Your task to perform on an android device: turn on location history Image 0: 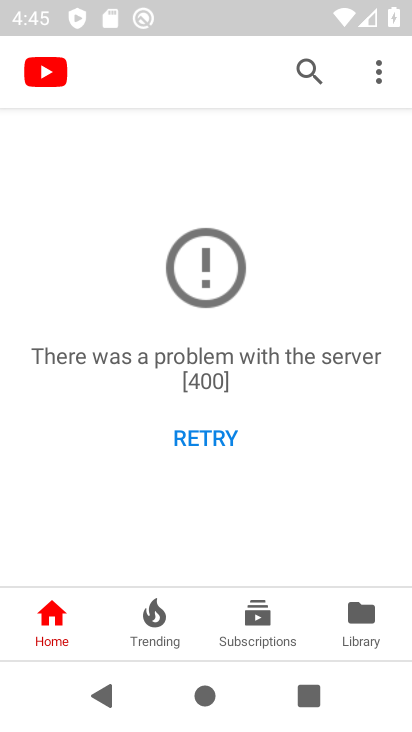
Step 0: press home button
Your task to perform on an android device: turn on location history Image 1: 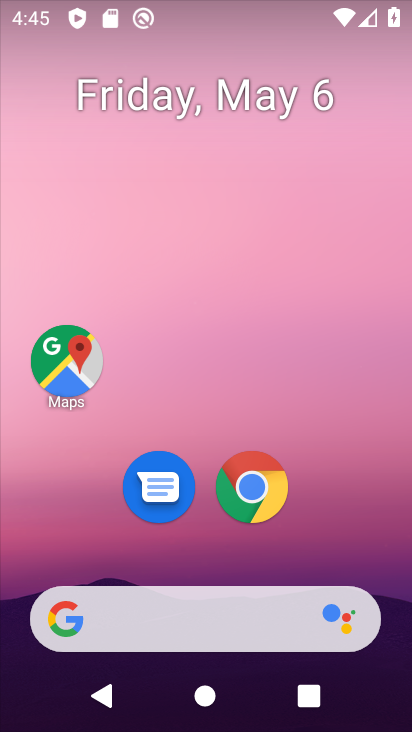
Step 1: drag from (195, 420) to (232, 0)
Your task to perform on an android device: turn on location history Image 2: 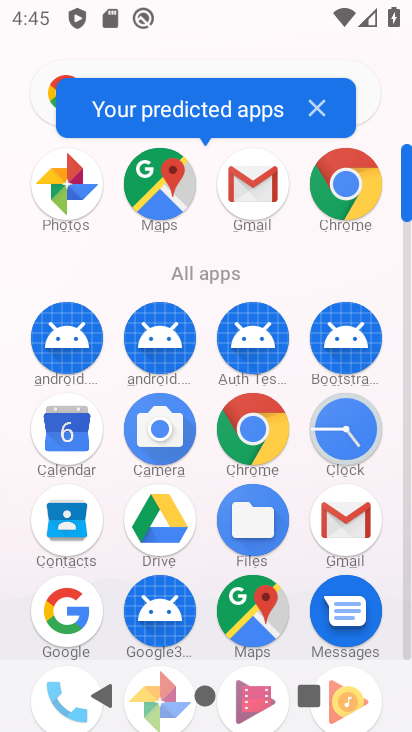
Step 2: drag from (103, 560) to (122, 232)
Your task to perform on an android device: turn on location history Image 3: 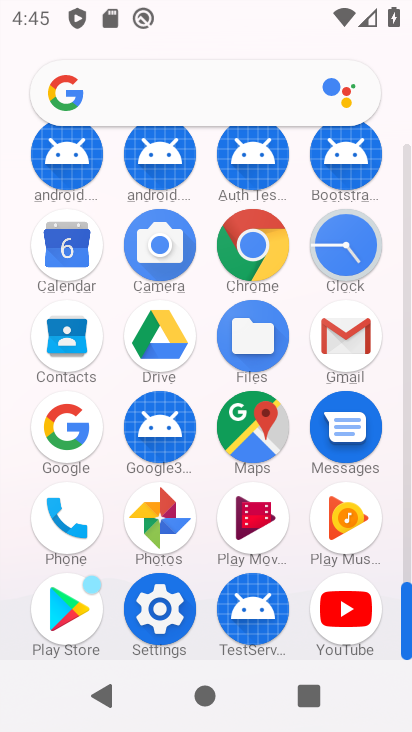
Step 3: click (158, 603)
Your task to perform on an android device: turn on location history Image 4: 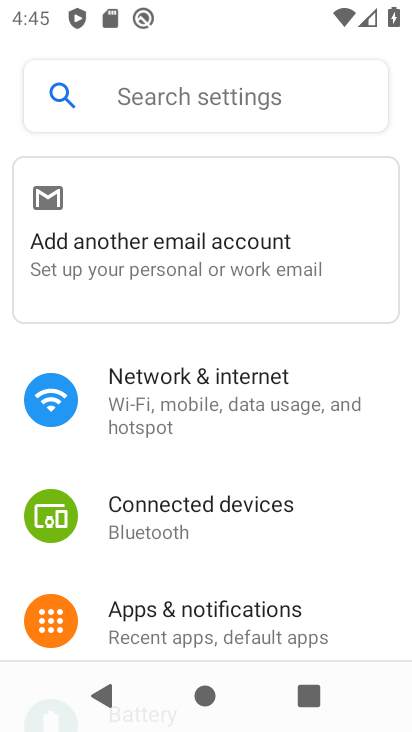
Step 4: drag from (214, 557) to (252, 435)
Your task to perform on an android device: turn on location history Image 5: 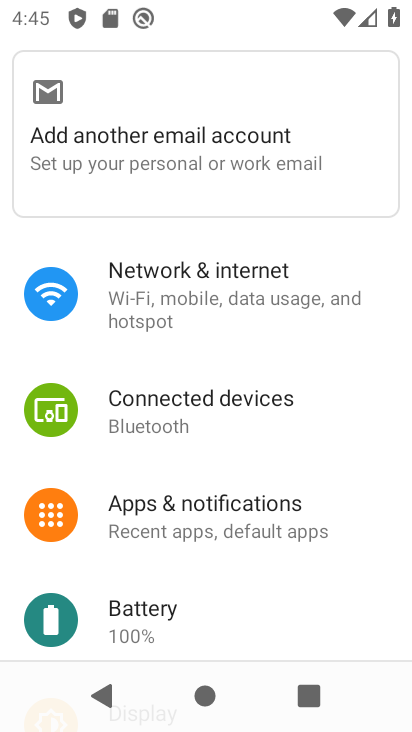
Step 5: drag from (206, 560) to (238, 437)
Your task to perform on an android device: turn on location history Image 6: 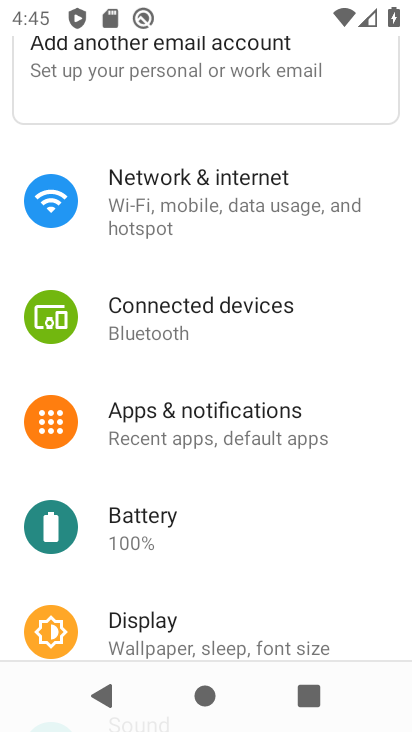
Step 6: drag from (213, 566) to (251, 420)
Your task to perform on an android device: turn on location history Image 7: 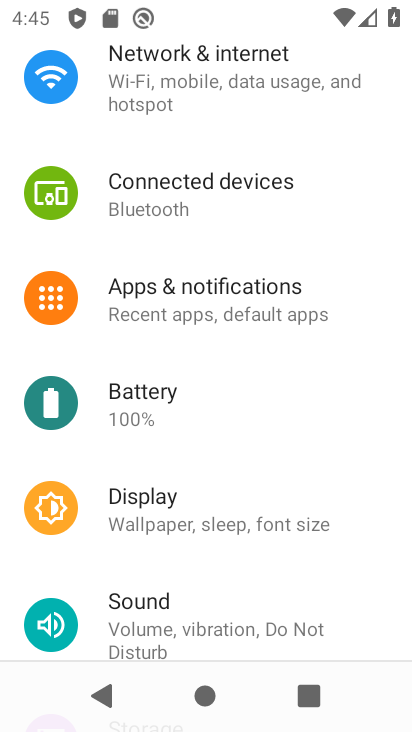
Step 7: drag from (207, 591) to (246, 421)
Your task to perform on an android device: turn on location history Image 8: 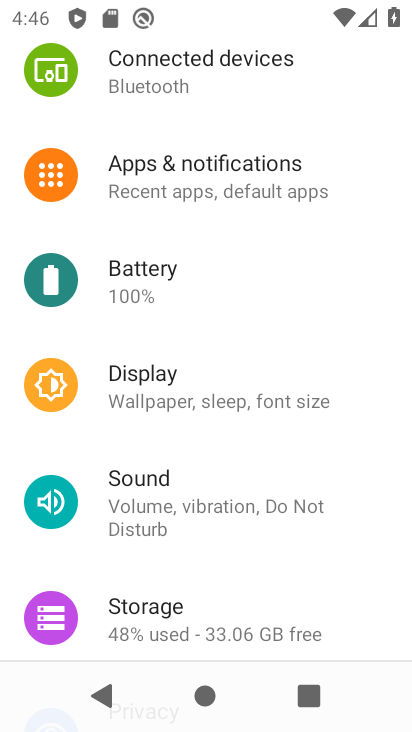
Step 8: drag from (206, 576) to (307, 438)
Your task to perform on an android device: turn on location history Image 9: 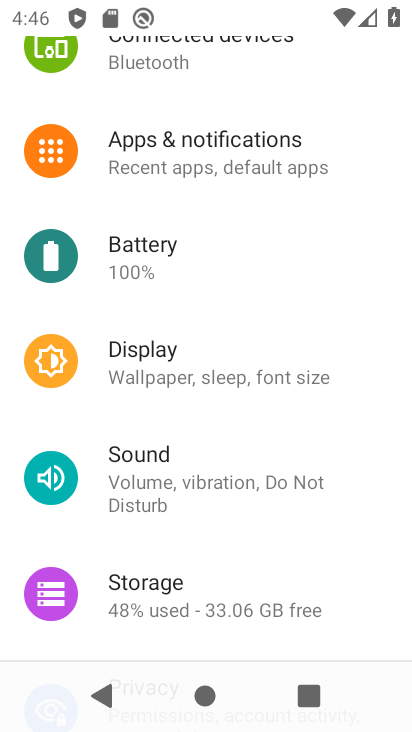
Step 9: drag from (195, 556) to (270, 384)
Your task to perform on an android device: turn on location history Image 10: 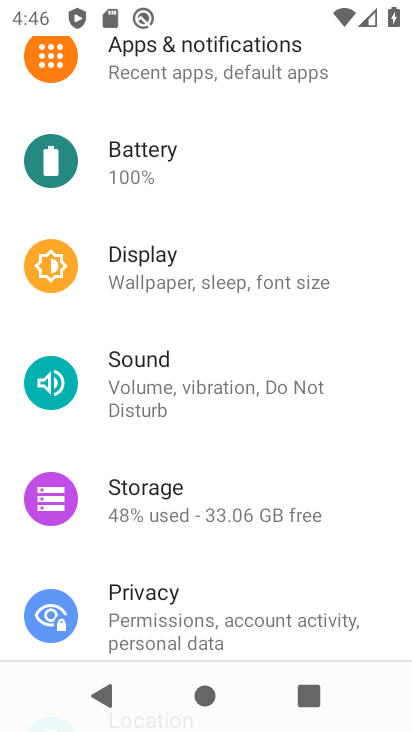
Step 10: drag from (218, 571) to (336, 349)
Your task to perform on an android device: turn on location history Image 11: 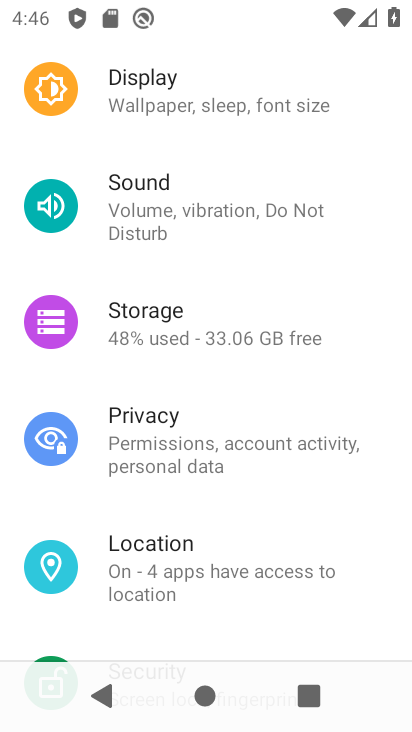
Step 11: click (174, 562)
Your task to perform on an android device: turn on location history Image 12: 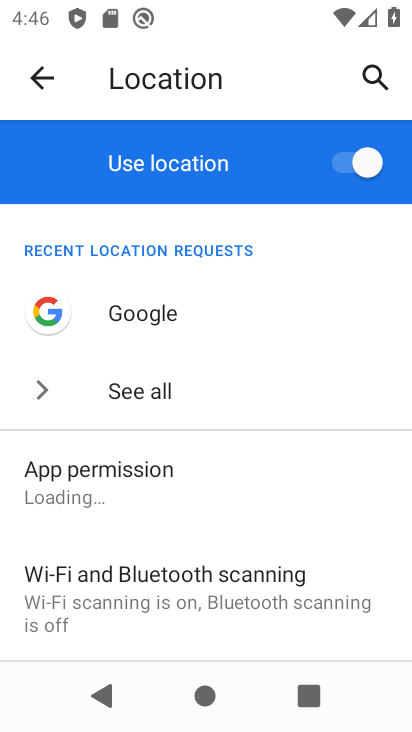
Step 12: drag from (172, 534) to (269, 324)
Your task to perform on an android device: turn on location history Image 13: 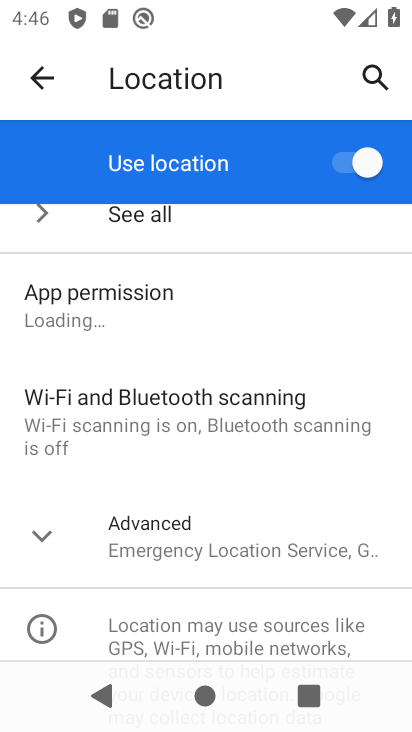
Step 13: click (222, 540)
Your task to perform on an android device: turn on location history Image 14: 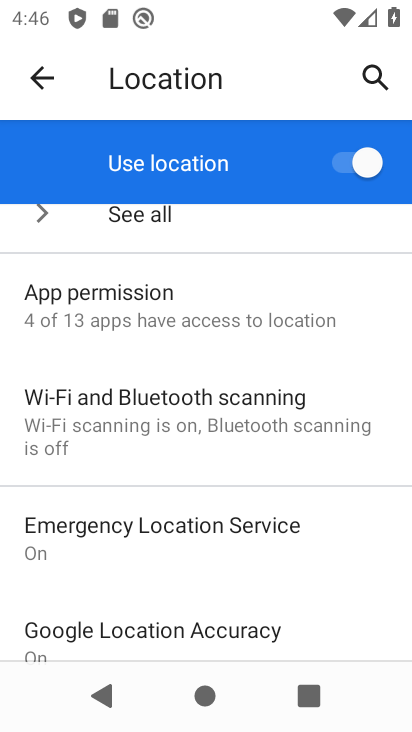
Step 14: drag from (198, 550) to (330, 382)
Your task to perform on an android device: turn on location history Image 15: 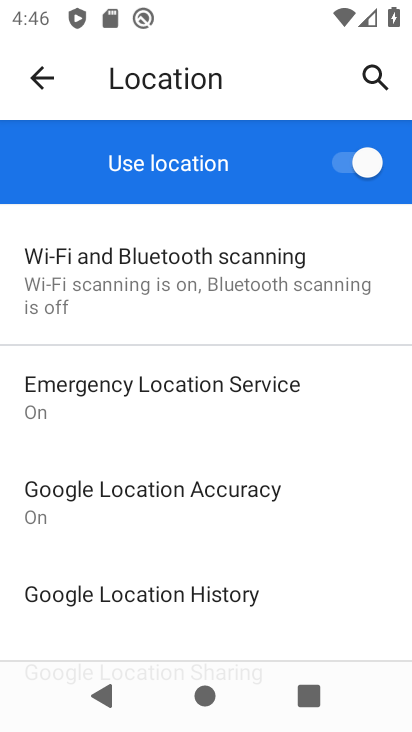
Step 15: drag from (220, 568) to (330, 421)
Your task to perform on an android device: turn on location history Image 16: 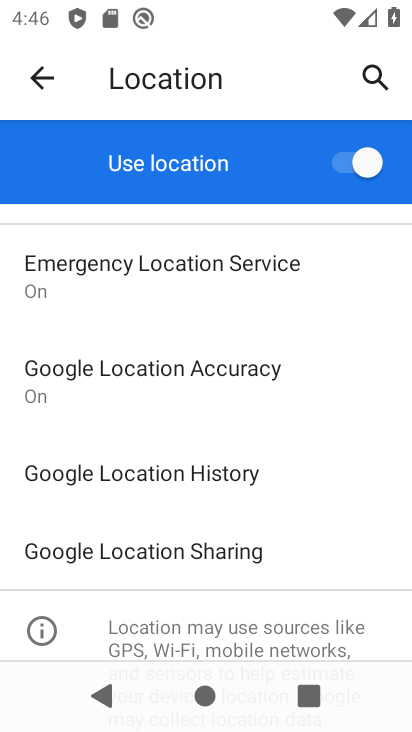
Step 16: click (174, 471)
Your task to perform on an android device: turn on location history Image 17: 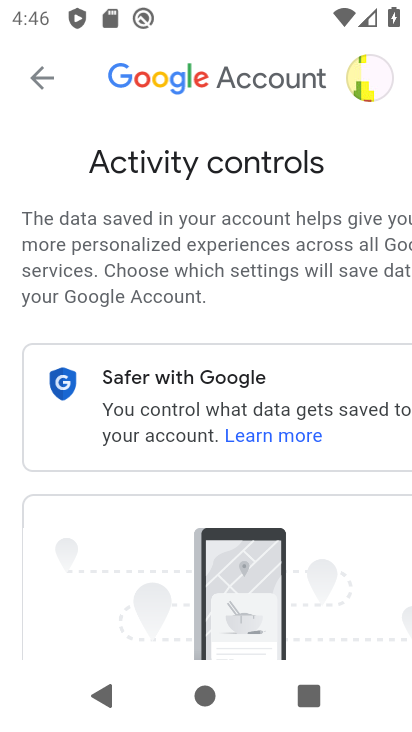
Step 17: drag from (102, 555) to (172, 381)
Your task to perform on an android device: turn on location history Image 18: 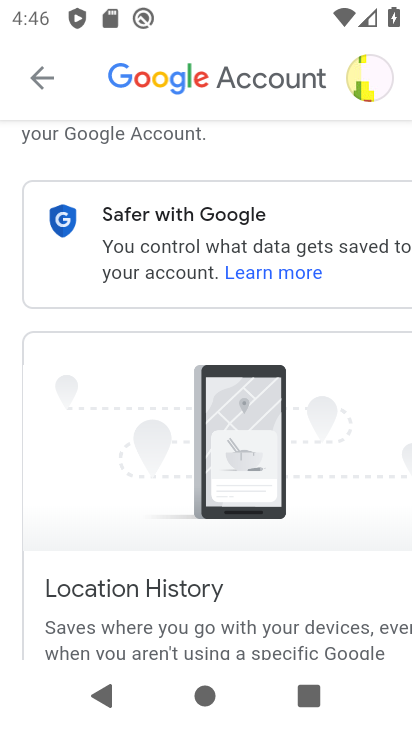
Step 18: drag from (138, 506) to (173, 390)
Your task to perform on an android device: turn on location history Image 19: 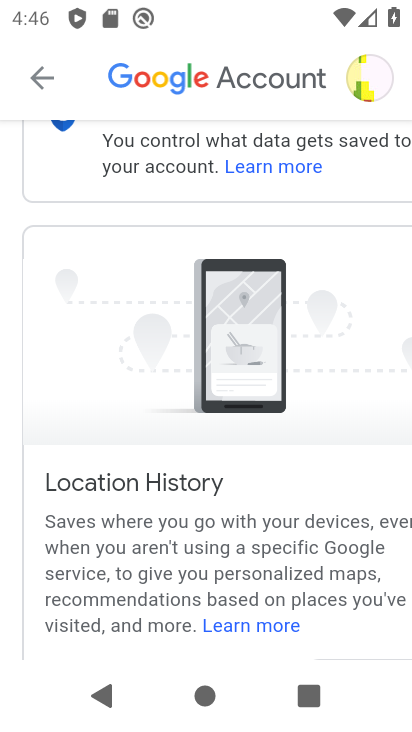
Step 19: drag from (141, 583) to (190, 398)
Your task to perform on an android device: turn on location history Image 20: 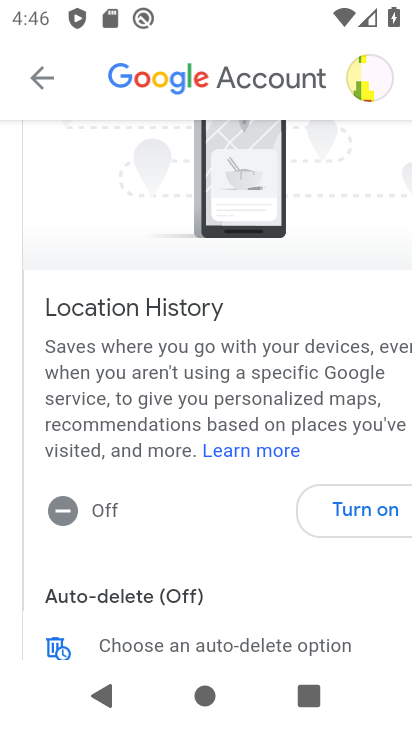
Step 20: click (353, 507)
Your task to perform on an android device: turn on location history Image 21: 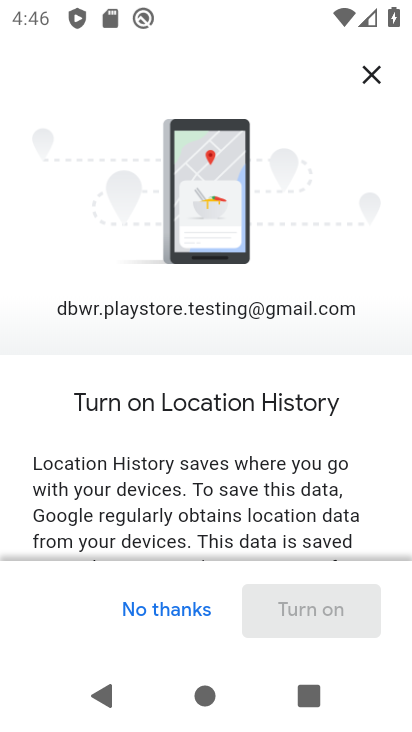
Step 21: drag from (257, 481) to (302, 200)
Your task to perform on an android device: turn on location history Image 22: 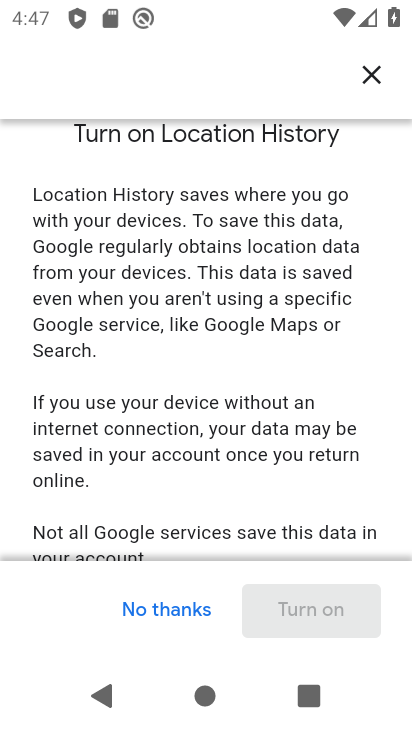
Step 22: drag from (295, 490) to (353, 206)
Your task to perform on an android device: turn on location history Image 23: 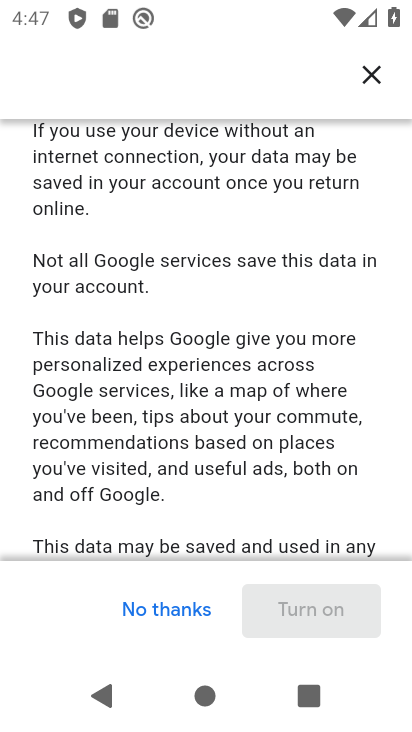
Step 23: drag from (270, 471) to (303, 210)
Your task to perform on an android device: turn on location history Image 24: 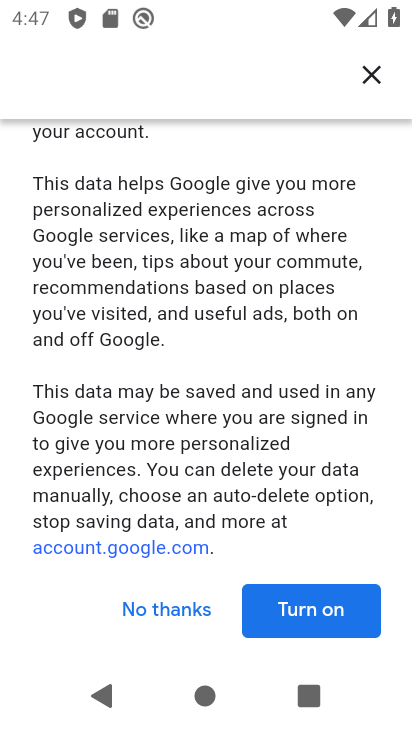
Step 24: click (302, 603)
Your task to perform on an android device: turn on location history Image 25: 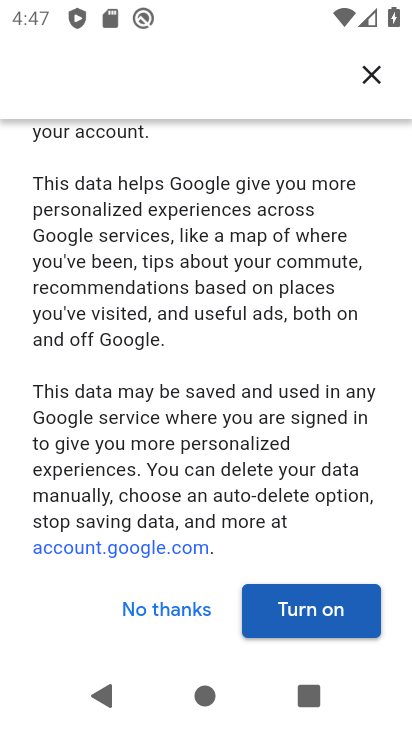
Step 25: click (302, 616)
Your task to perform on an android device: turn on location history Image 26: 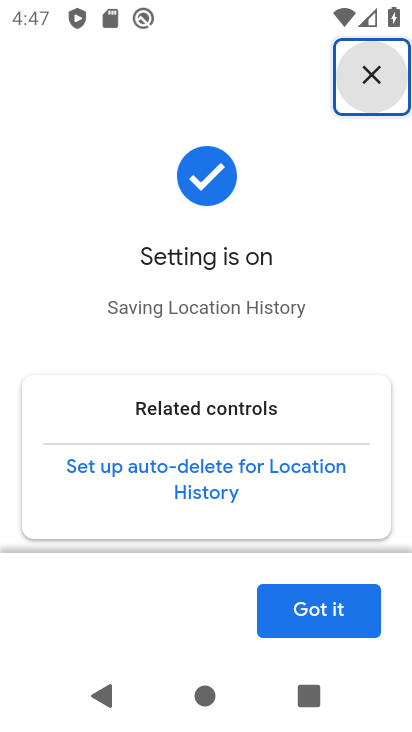
Step 26: task complete